Your task to perform on an android device: Go to Google maps Image 0: 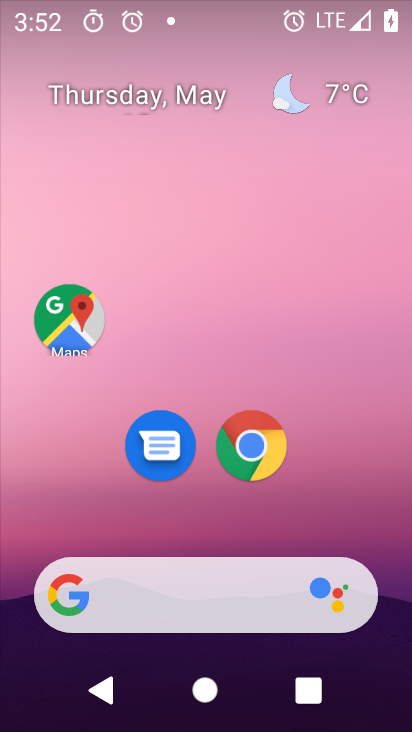
Step 0: click (68, 327)
Your task to perform on an android device: Go to Google maps Image 1: 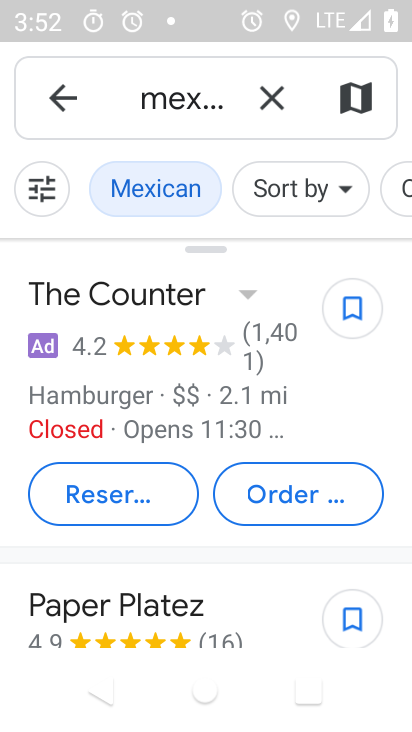
Step 1: task complete